Your task to perform on an android device: Go to Maps Image 0: 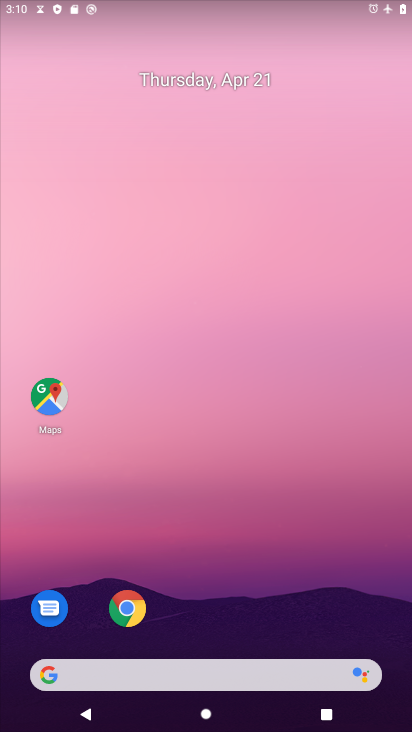
Step 0: click (53, 409)
Your task to perform on an android device: Go to Maps Image 1: 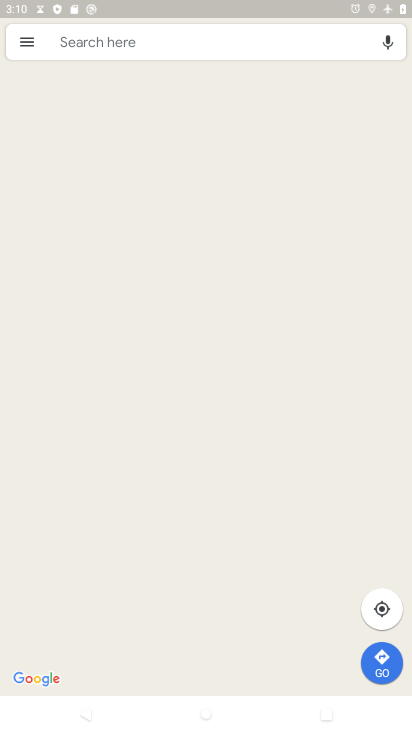
Step 1: task complete